Your task to perform on an android device: change your default location settings in chrome Image 0: 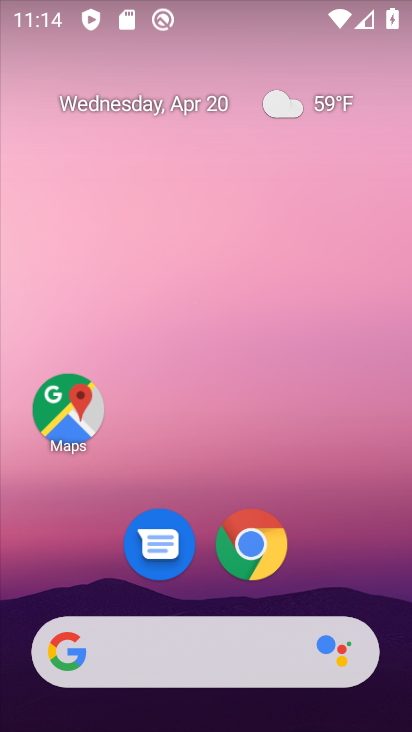
Step 0: click (260, 546)
Your task to perform on an android device: change your default location settings in chrome Image 1: 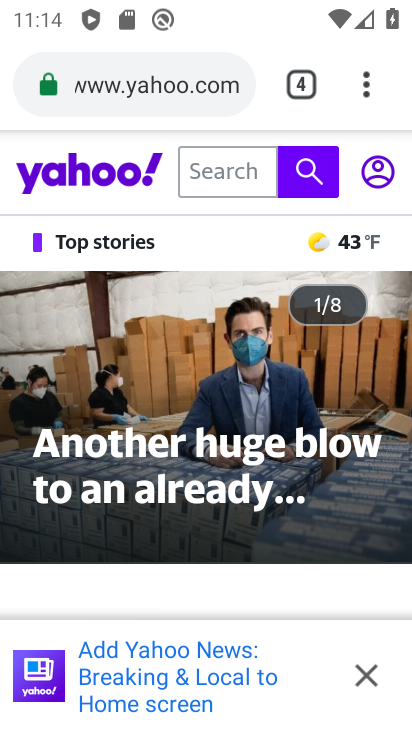
Step 1: click (367, 82)
Your task to perform on an android device: change your default location settings in chrome Image 2: 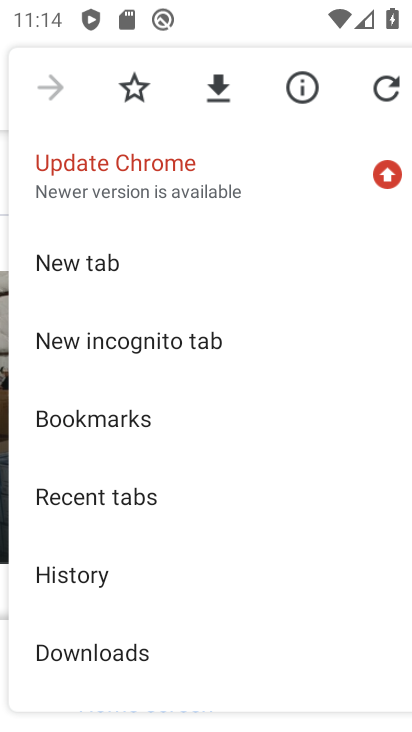
Step 2: drag from (137, 525) to (200, 152)
Your task to perform on an android device: change your default location settings in chrome Image 3: 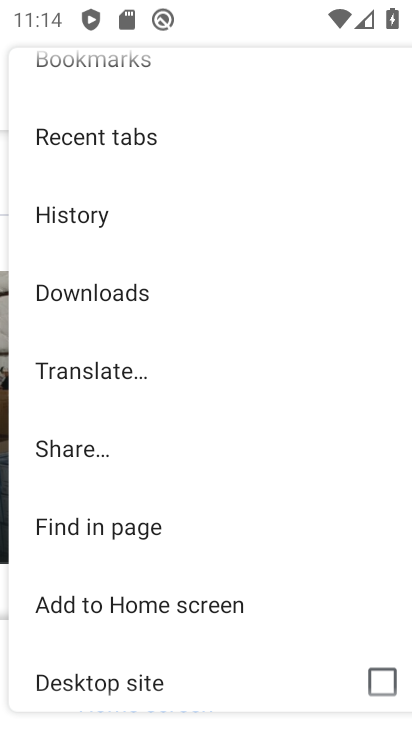
Step 3: drag from (250, 596) to (264, 280)
Your task to perform on an android device: change your default location settings in chrome Image 4: 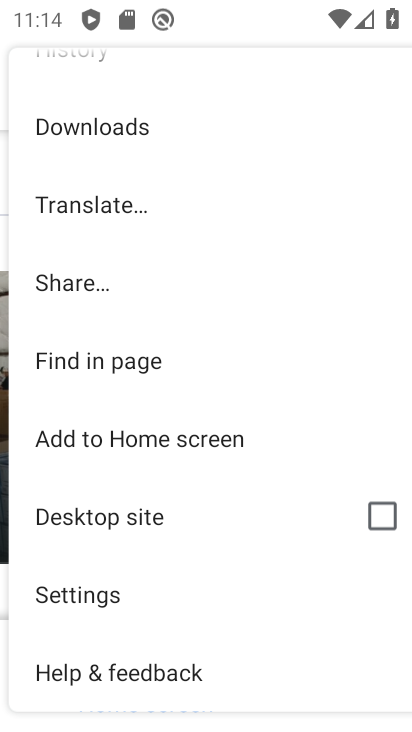
Step 4: click (139, 608)
Your task to perform on an android device: change your default location settings in chrome Image 5: 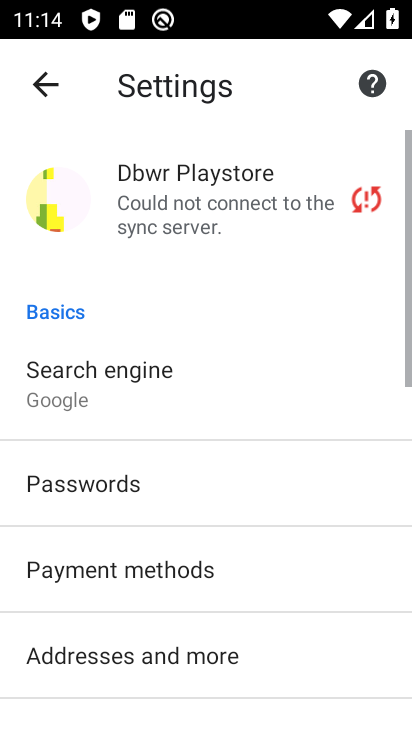
Step 5: drag from (205, 599) to (270, 205)
Your task to perform on an android device: change your default location settings in chrome Image 6: 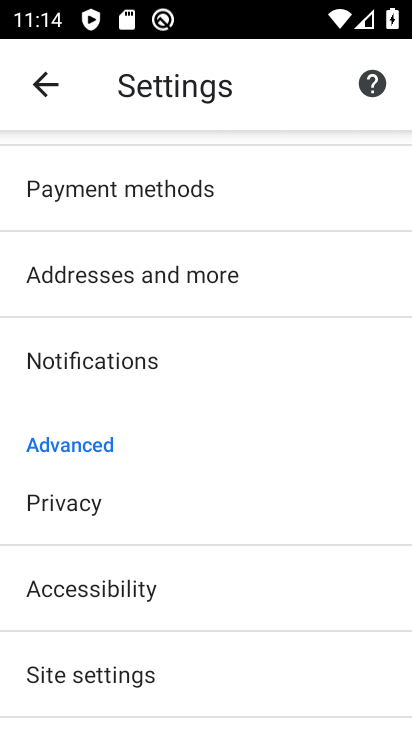
Step 6: drag from (234, 539) to (244, 298)
Your task to perform on an android device: change your default location settings in chrome Image 7: 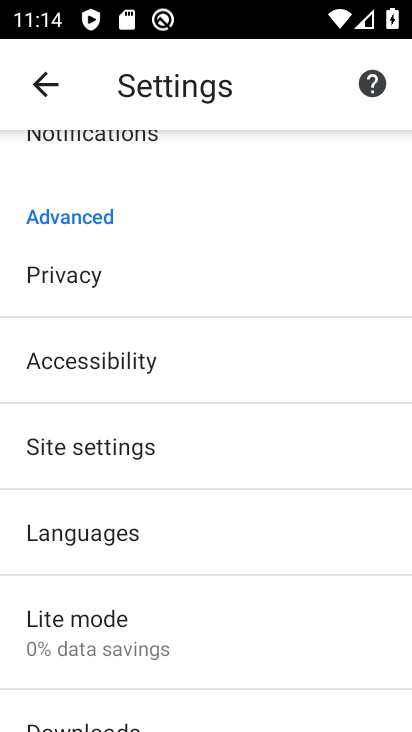
Step 7: click (231, 432)
Your task to perform on an android device: change your default location settings in chrome Image 8: 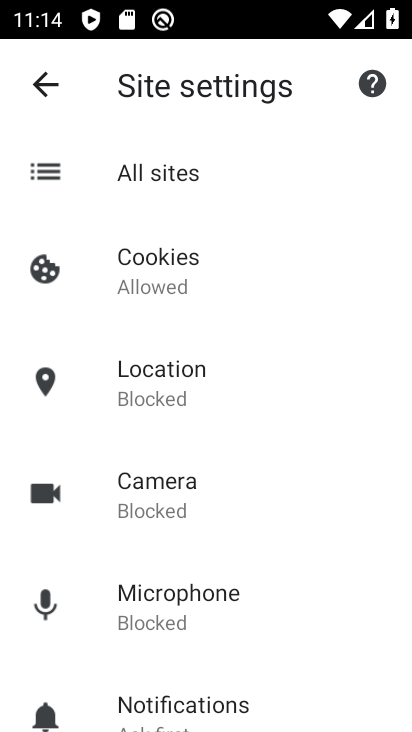
Step 8: click (233, 379)
Your task to perform on an android device: change your default location settings in chrome Image 9: 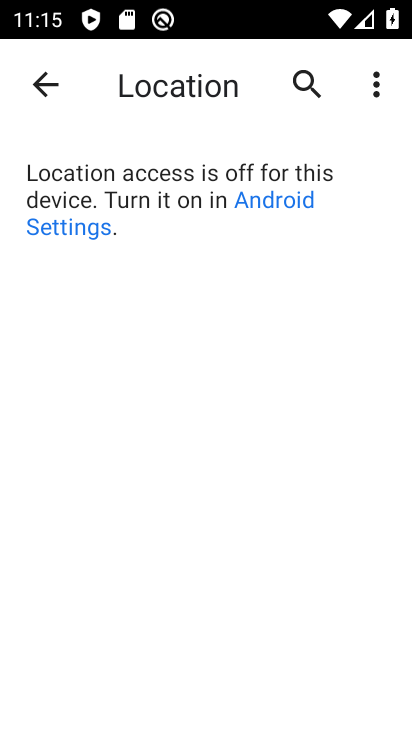
Step 9: click (281, 201)
Your task to perform on an android device: change your default location settings in chrome Image 10: 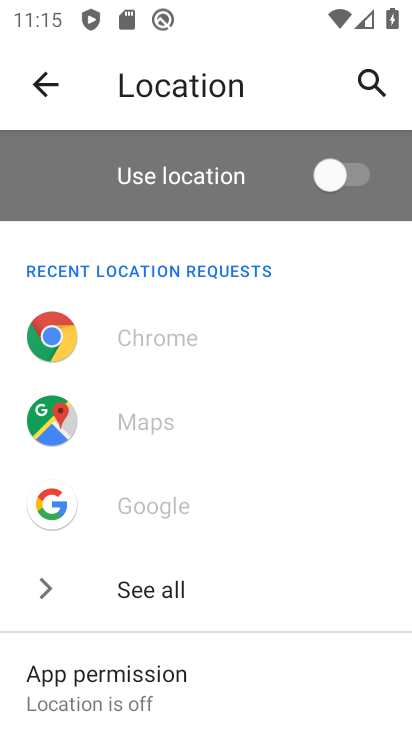
Step 10: click (363, 164)
Your task to perform on an android device: change your default location settings in chrome Image 11: 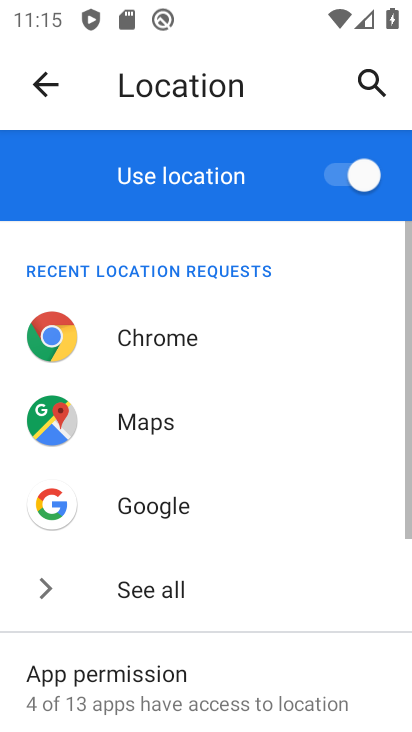
Step 11: task complete